Your task to perform on an android device: see creations saved in the google photos Image 0: 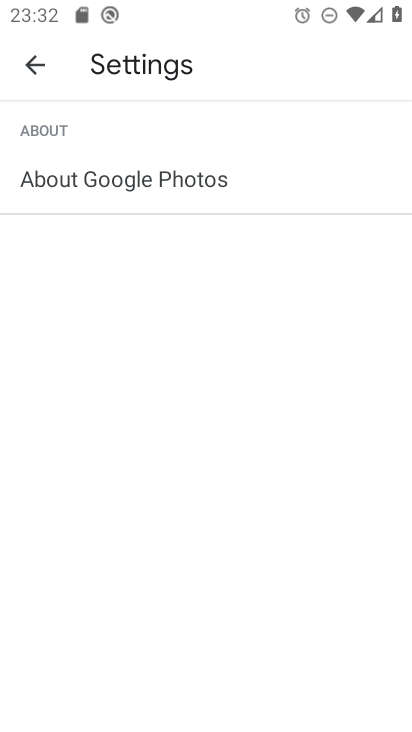
Step 0: press home button
Your task to perform on an android device: see creations saved in the google photos Image 1: 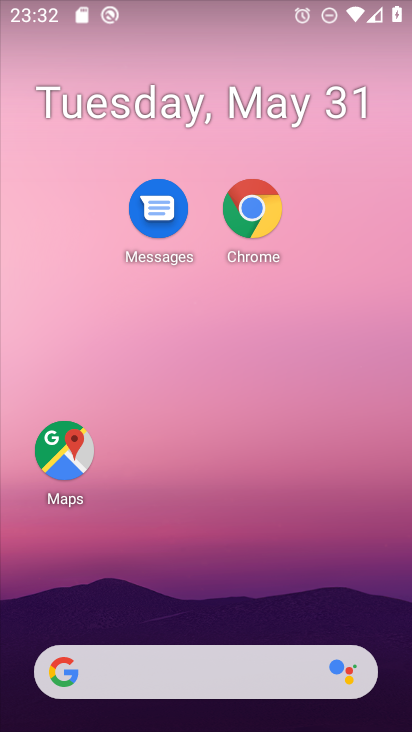
Step 1: drag from (211, 632) to (217, 109)
Your task to perform on an android device: see creations saved in the google photos Image 2: 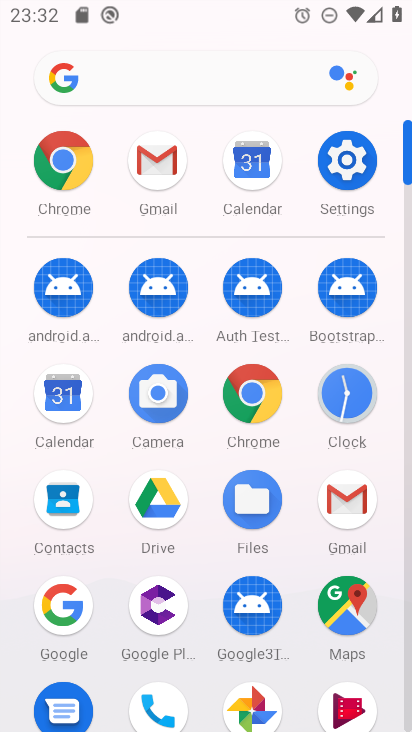
Step 2: click (249, 701)
Your task to perform on an android device: see creations saved in the google photos Image 3: 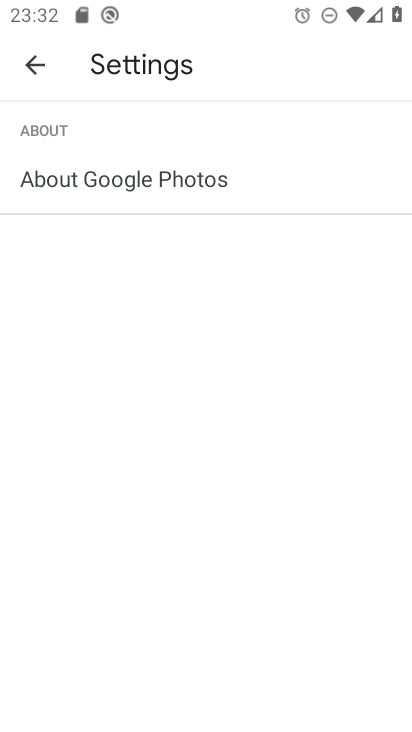
Step 3: click (39, 70)
Your task to perform on an android device: see creations saved in the google photos Image 4: 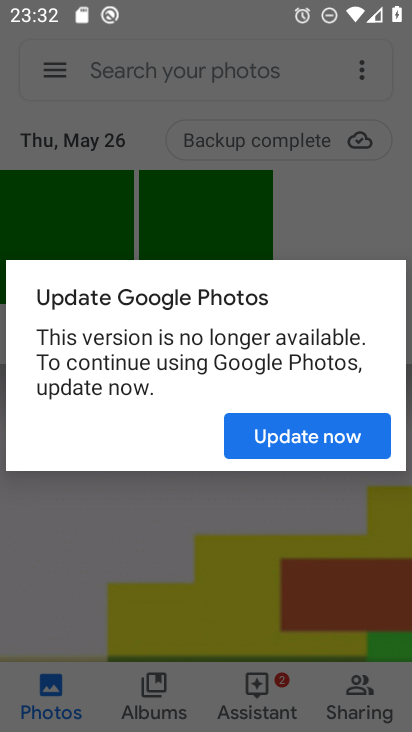
Step 4: click (310, 442)
Your task to perform on an android device: see creations saved in the google photos Image 5: 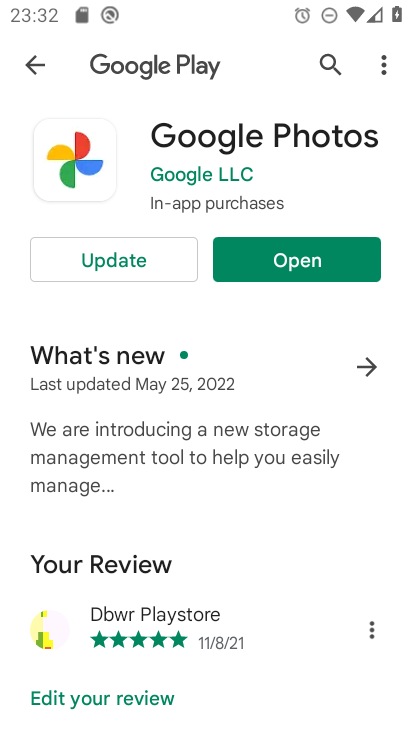
Step 5: click (130, 257)
Your task to perform on an android device: see creations saved in the google photos Image 6: 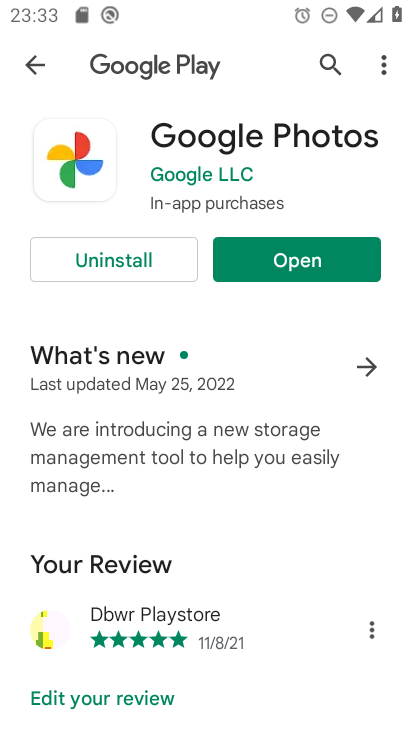
Step 6: click (303, 260)
Your task to perform on an android device: see creations saved in the google photos Image 7: 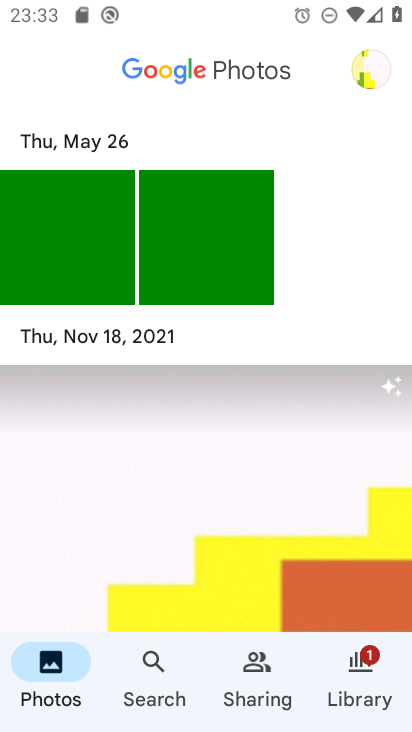
Step 7: click (149, 662)
Your task to perform on an android device: see creations saved in the google photos Image 8: 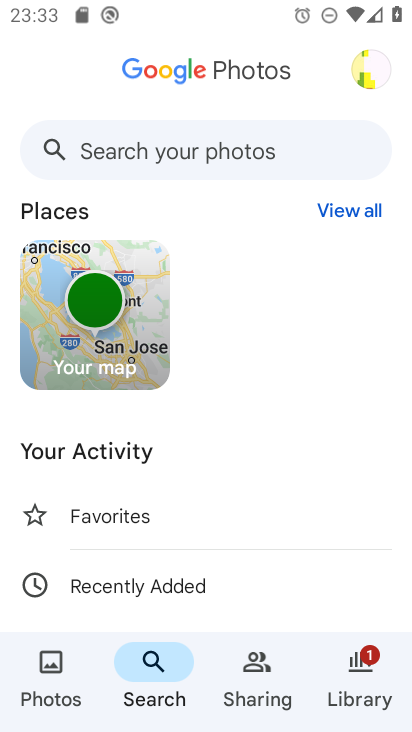
Step 8: drag from (168, 565) to (177, 151)
Your task to perform on an android device: see creations saved in the google photos Image 9: 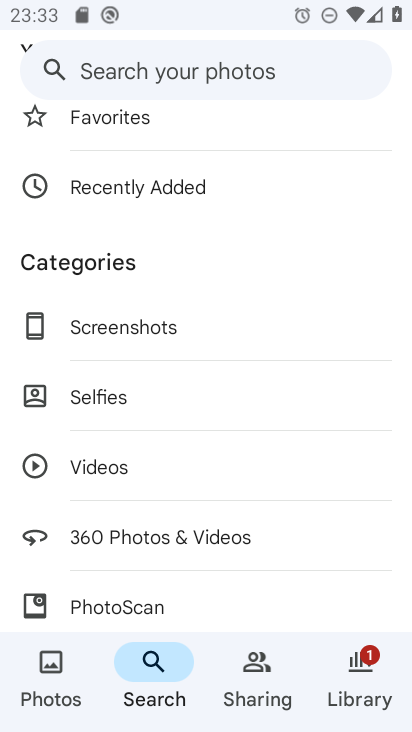
Step 9: drag from (198, 598) to (185, 160)
Your task to perform on an android device: see creations saved in the google photos Image 10: 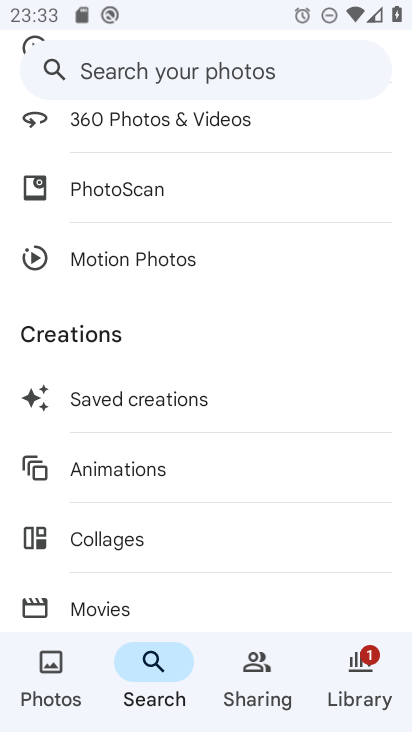
Step 10: click (210, 401)
Your task to perform on an android device: see creations saved in the google photos Image 11: 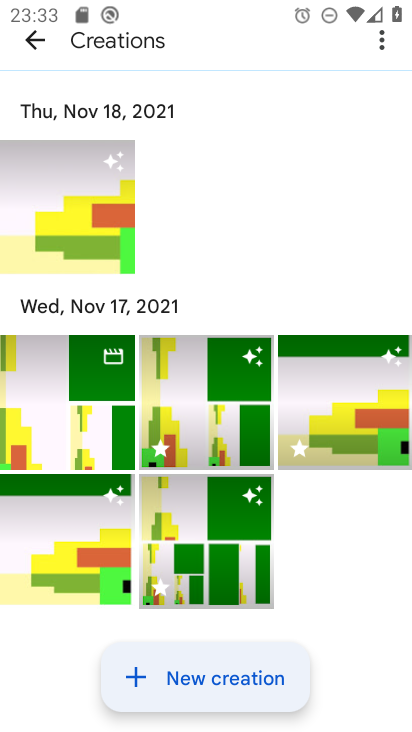
Step 11: task complete